Your task to perform on an android device: Search for Italian restaurants on Maps Image 0: 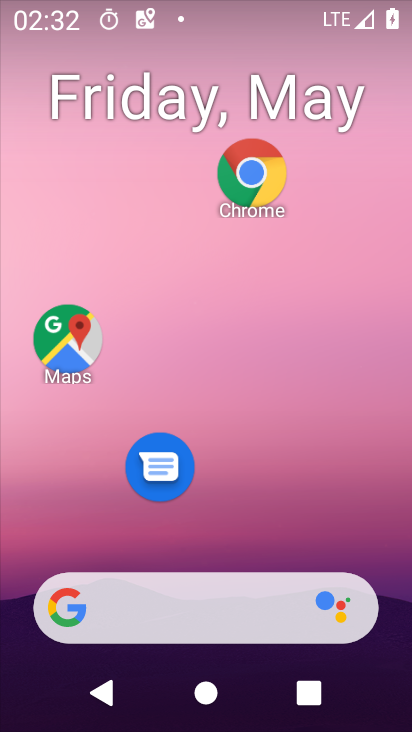
Step 0: drag from (283, 644) to (313, 236)
Your task to perform on an android device: Search for Italian restaurants on Maps Image 1: 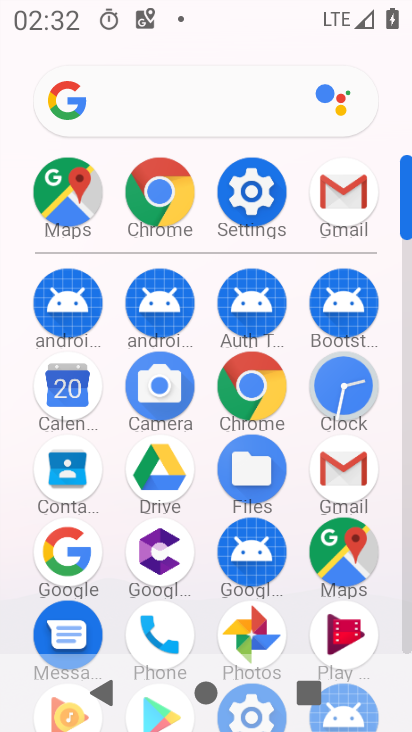
Step 1: click (346, 541)
Your task to perform on an android device: Search for Italian restaurants on Maps Image 2: 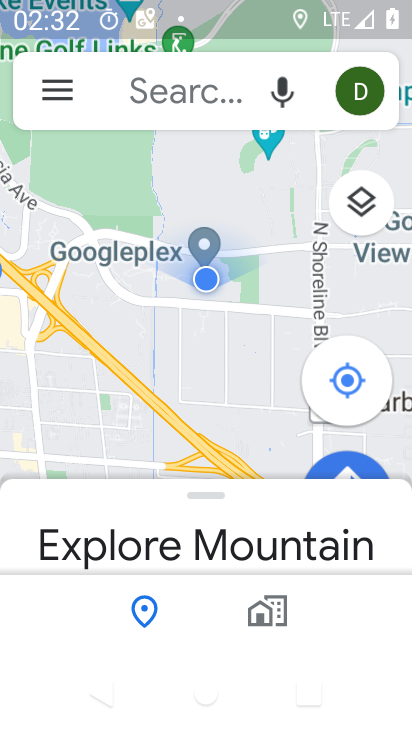
Step 2: click (171, 100)
Your task to perform on an android device: Search for Italian restaurants on Maps Image 3: 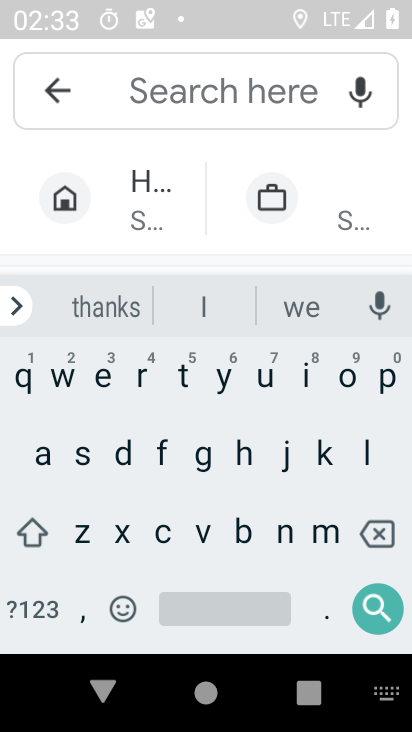
Step 3: click (302, 378)
Your task to perform on an android device: Search for Italian restaurants on Maps Image 4: 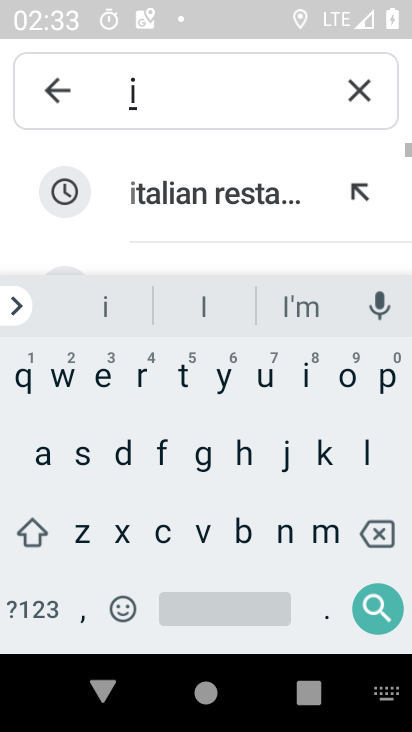
Step 4: click (174, 208)
Your task to perform on an android device: Search for Italian restaurants on Maps Image 5: 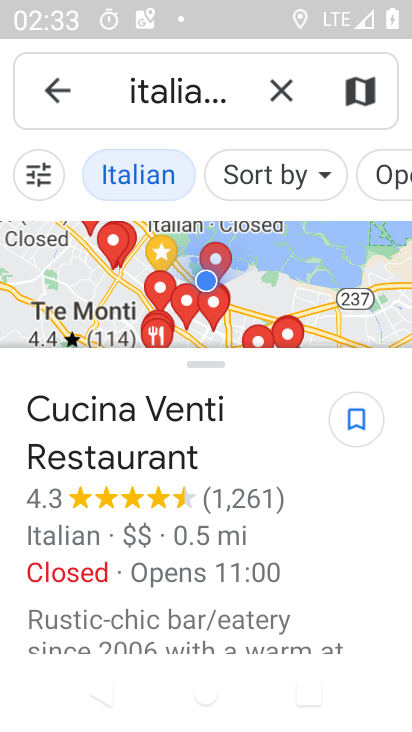
Step 5: click (103, 295)
Your task to perform on an android device: Search for Italian restaurants on Maps Image 6: 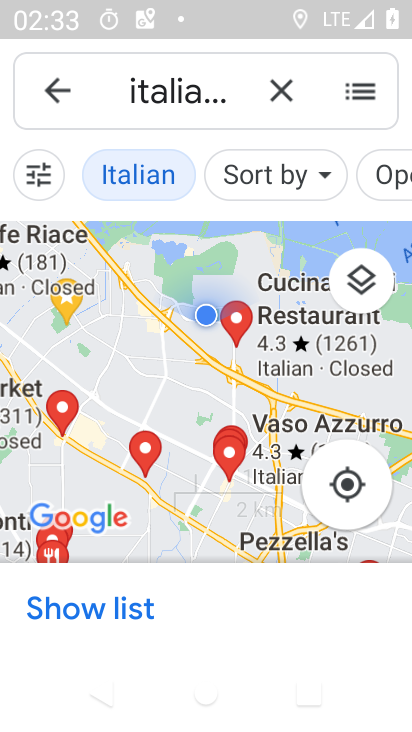
Step 6: task complete